Your task to perform on an android device: toggle sleep mode Image 0: 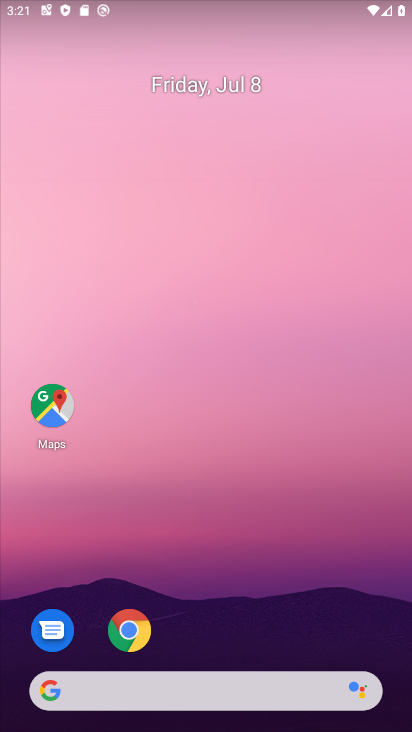
Step 0: drag from (261, 630) to (257, 218)
Your task to perform on an android device: toggle sleep mode Image 1: 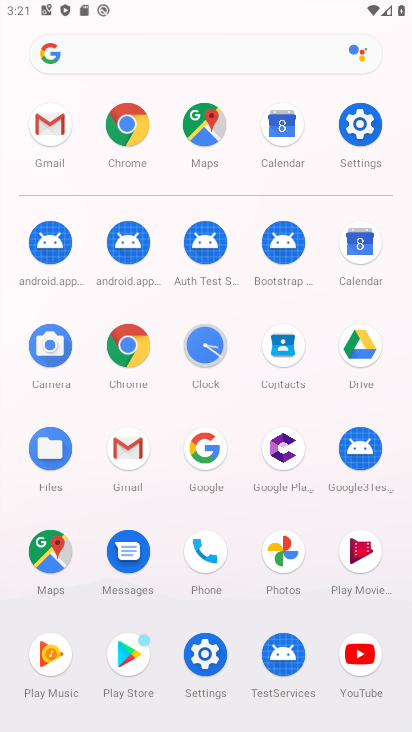
Step 1: click (349, 144)
Your task to perform on an android device: toggle sleep mode Image 2: 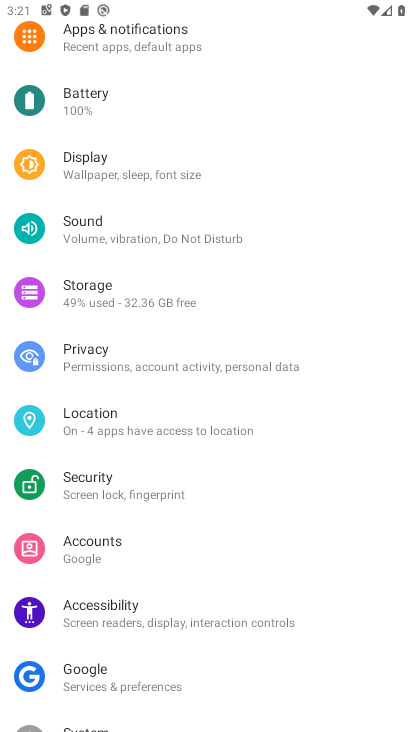
Step 2: click (129, 186)
Your task to perform on an android device: toggle sleep mode Image 3: 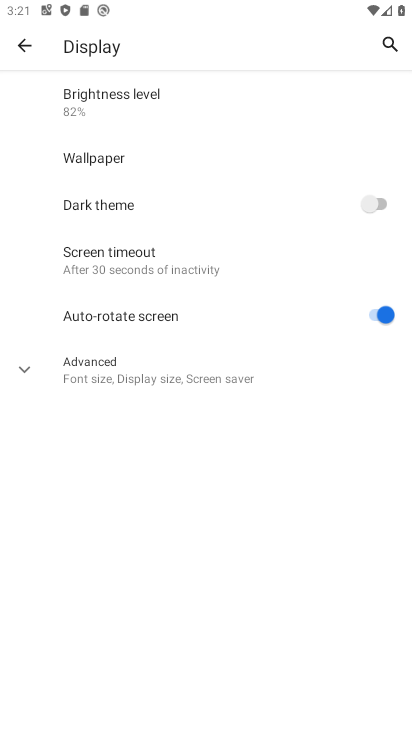
Step 3: click (195, 359)
Your task to perform on an android device: toggle sleep mode Image 4: 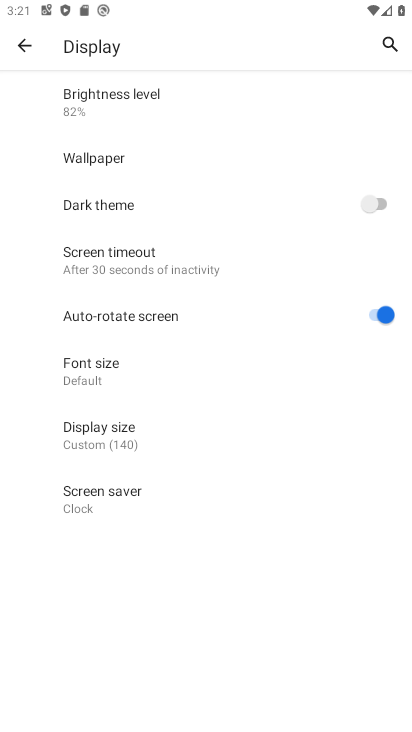
Step 4: click (154, 267)
Your task to perform on an android device: toggle sleep mode Image 5: 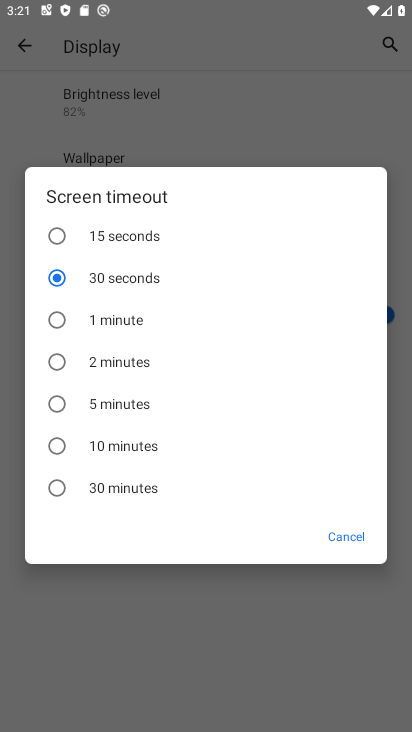
Step 5: click (222, 230)
Your task to perform on an android device: toggle sleep mode Image 6: 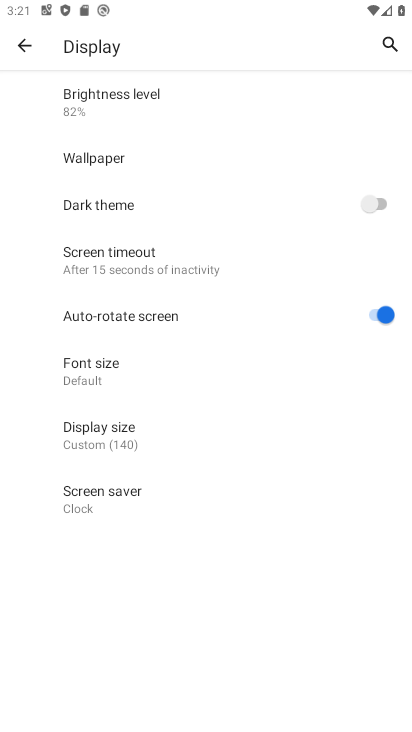
Step 6: task complete